Your task to perform on an android device: open the mobile data screen to see how much data has been used Image 0: 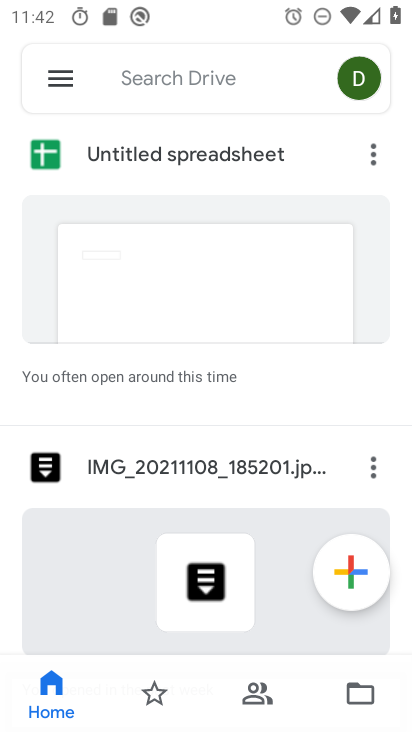
Step 0: press home button
Your task to perform on an android device: open the mobile data screen to see how much data has been used Image 1: 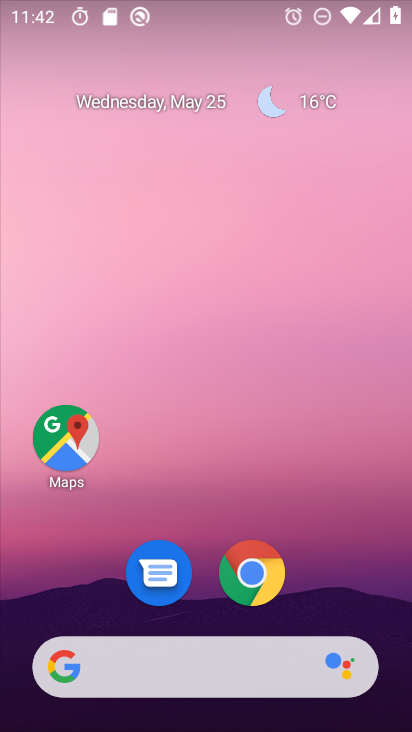
Step 1: drag from (389, 642) to (387, 0)
Your task to perform on an android device: open the mobile data screen to see how much data has been used Image 2: 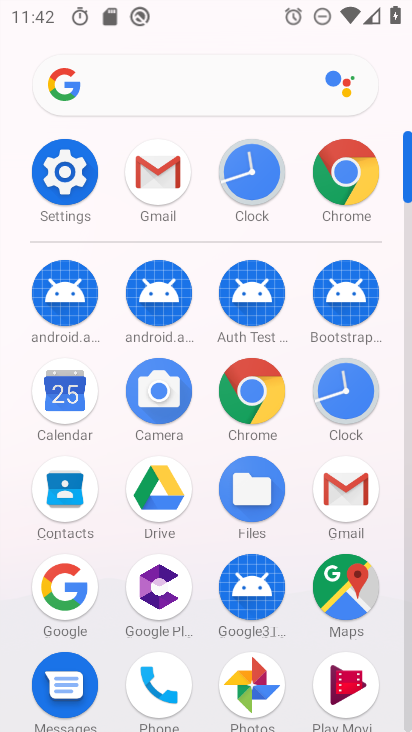
Step 2: click (56, 178)
Your task to perform on an android device: open the mobile data screen to see how much data has been used Image 3: 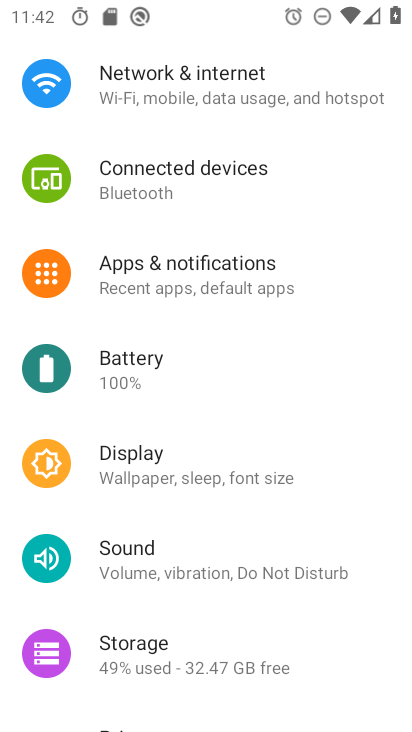
Step 3: click (157, 99)
Your task to perform on an android device: open the mobile data screen to see how much data has been used Image 4: 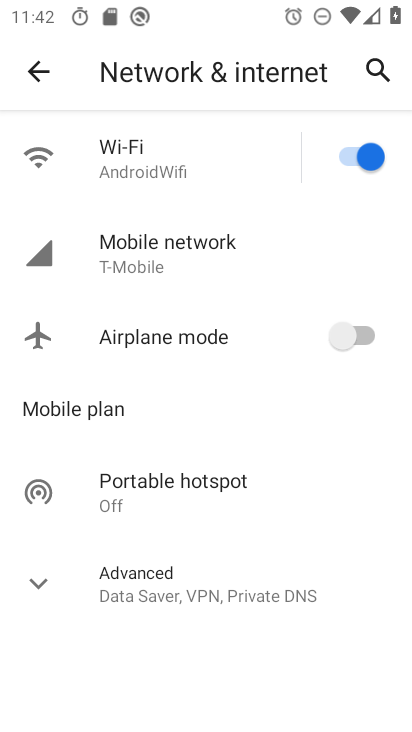
Step 4: click (125, 267)
Your task to perform on an android device: open the mobile data screen to see how much data has been used Image 5: 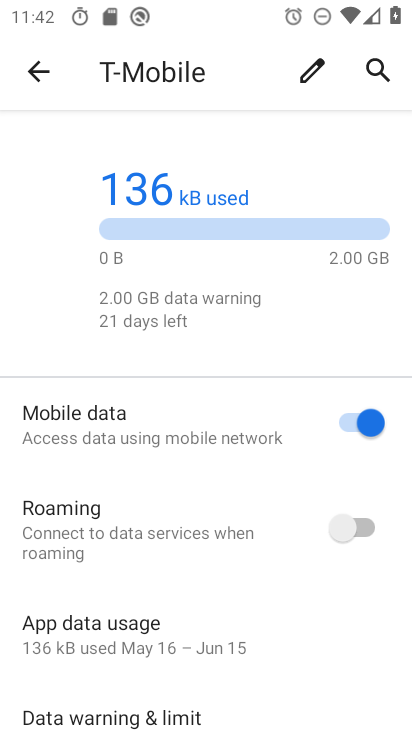
Step 5: click (107, 634)
Your task to perform on an android device: open the mobile data screen to see how much data has been used Image 6: 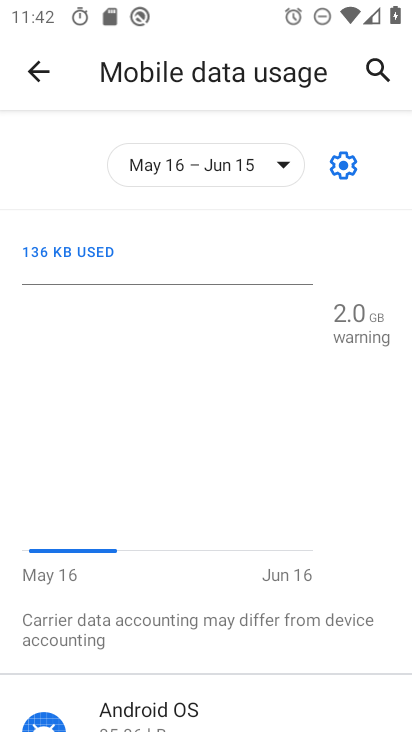
Step 6: task complete